Your task to perform on an android device: turn on bluetooth scan Image 0: 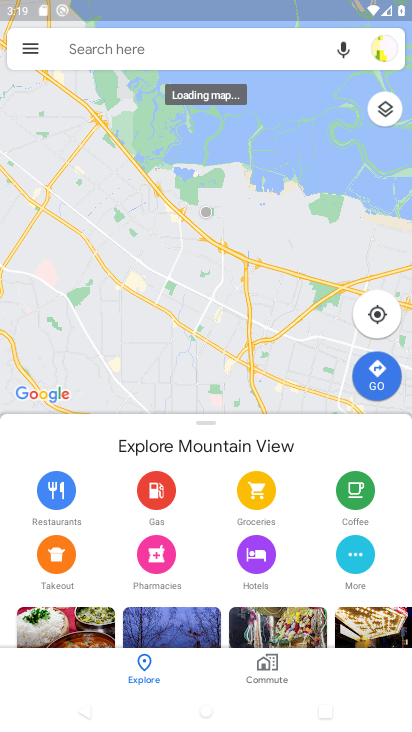
Step 0: press home button
Your task to perform on an android device: turn on bluetooth scan Image 1: 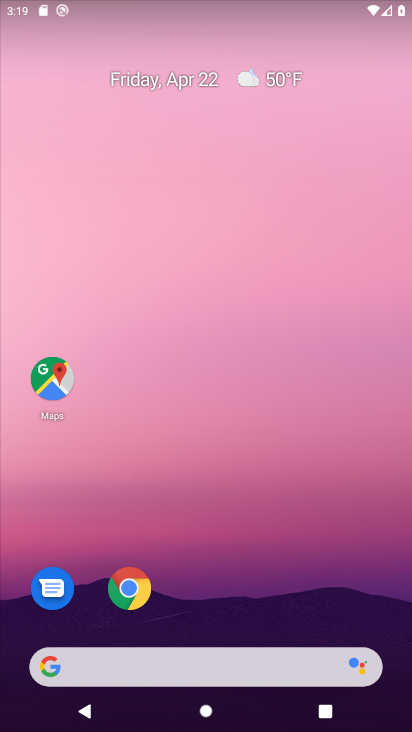
Step 1: drag from (325, 615) to (331, 197)
Your task to perform on an android device: turn on bluetooth scan Image 2: 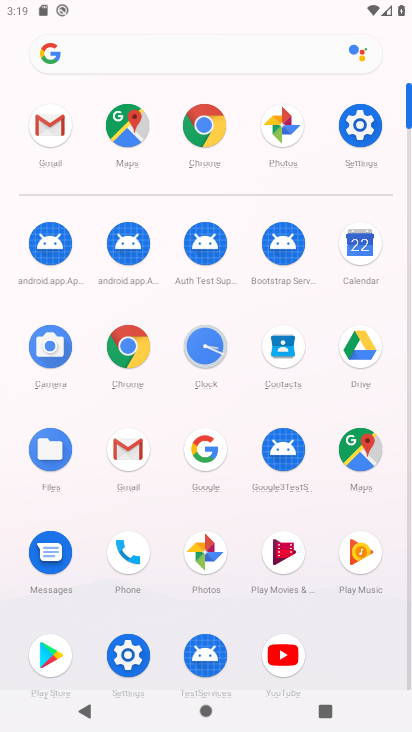
Step 2: click (364, 132)
Your task to perform on an android device: turn on bluetooth scan Image 3: 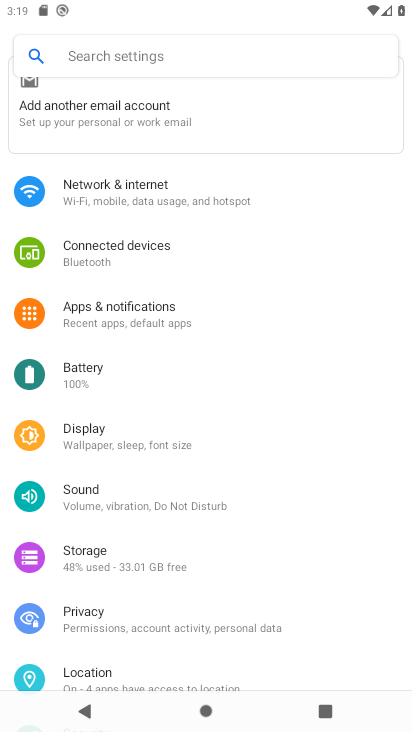
Step 3: drag from (345, 575) to (327, 376)
Your task to perform on an android device: turn on bluetooth scan Image 4: 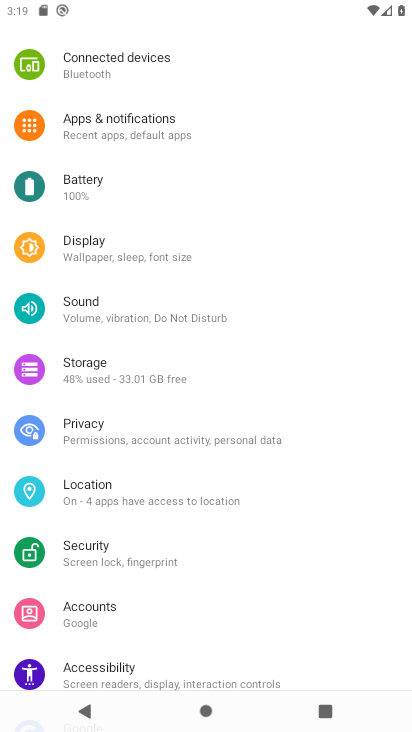
Step 4: drag from (333, 594) to (333, 423)
Your task to perform on an android device: turn on bluetooth scan Image 5: 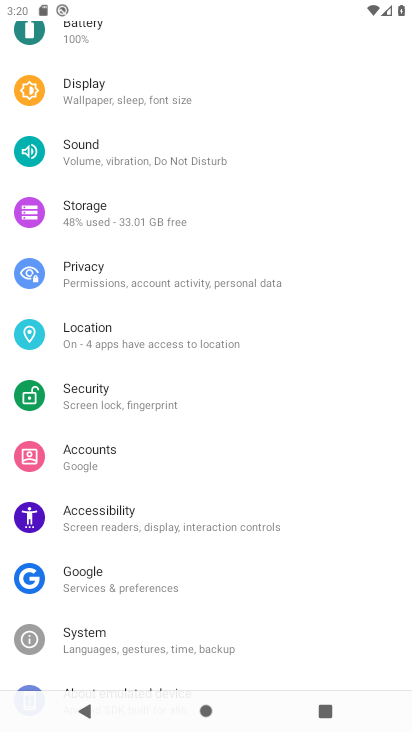
Step 5: click (191, 340)
Your task to perform on an android device: turn on bluetooth scan Image 6: 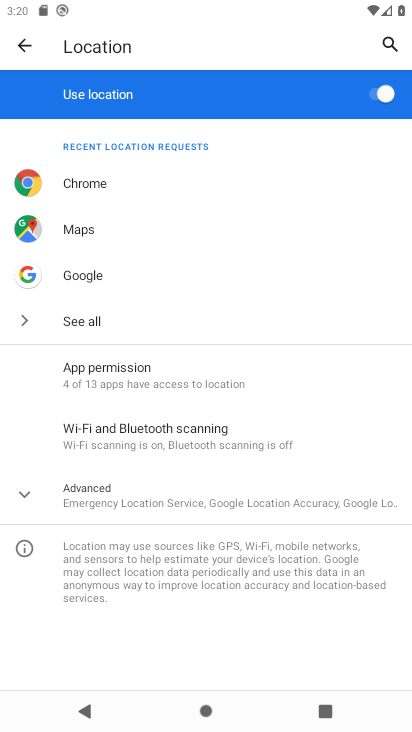
Step 6: click (223, 440)
Your task to perform on an android device: turn on bluetooth scan Image 7: 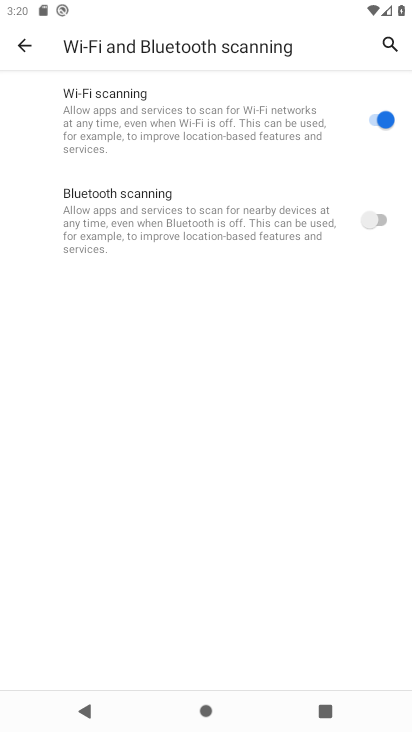
Step 7: click (365, 217)
Your task to perform on an android device: turn on bluetooth scan Image 8: 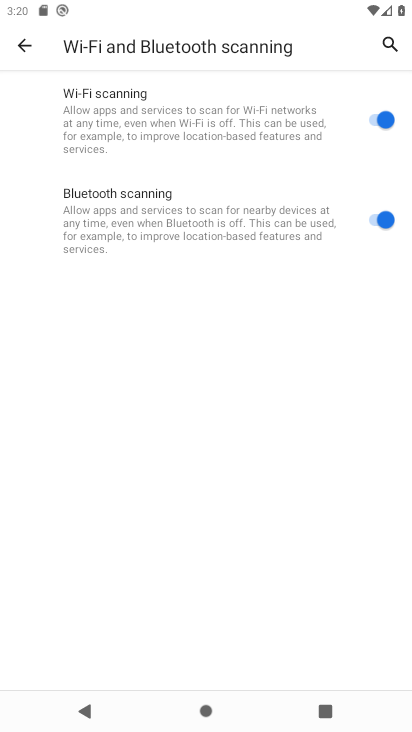
Step 8: task complete